Your task to perform on an android device: Open Android settings Image 0: 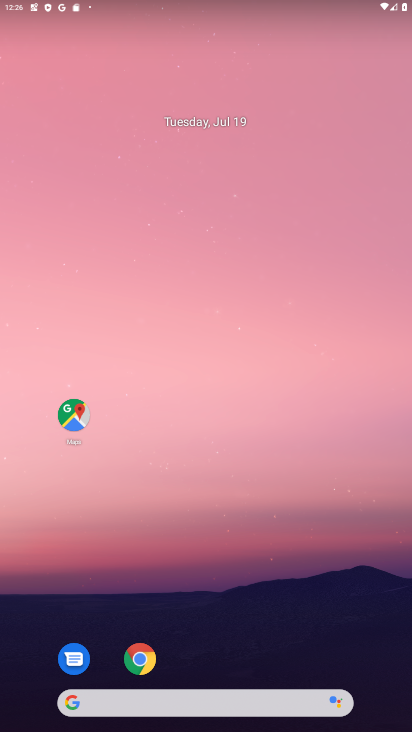
Step 0: drag from (207, 706) to (214, 214)
Your task to perform on an android device: Open Android settings Image 1: 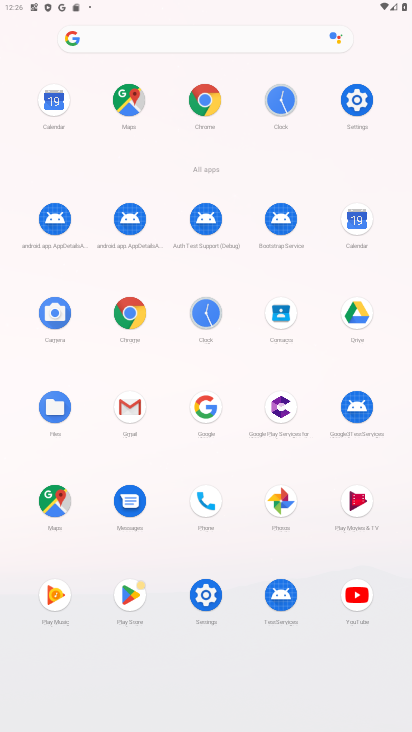
Step 1: click (359, 101)
Your task to perform on an android device: Open Android settings Image 2: 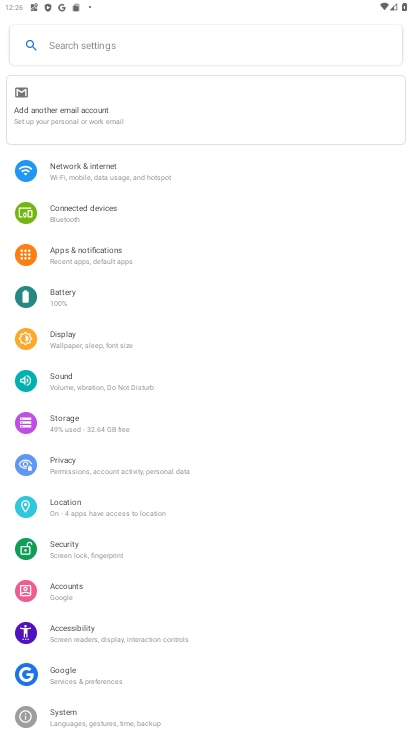
Step 2: task complete